Your task to perform on an android device: turn on improve location accuracy Image 0: 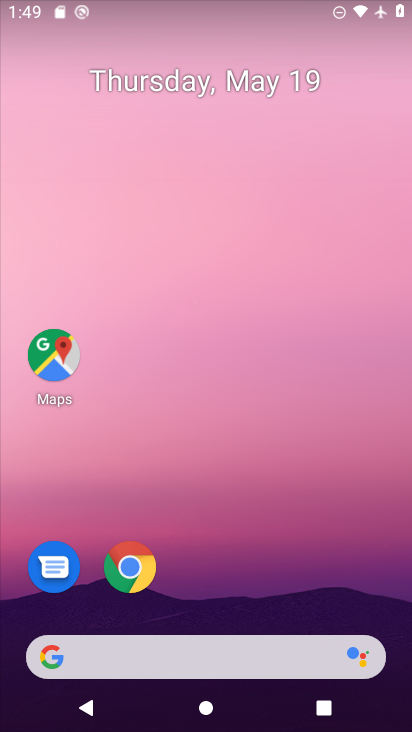
Step 0: drag from (273, 529) to (246, 38)
Your task to perform on an android device: turn on improve location accuracy Image 1: 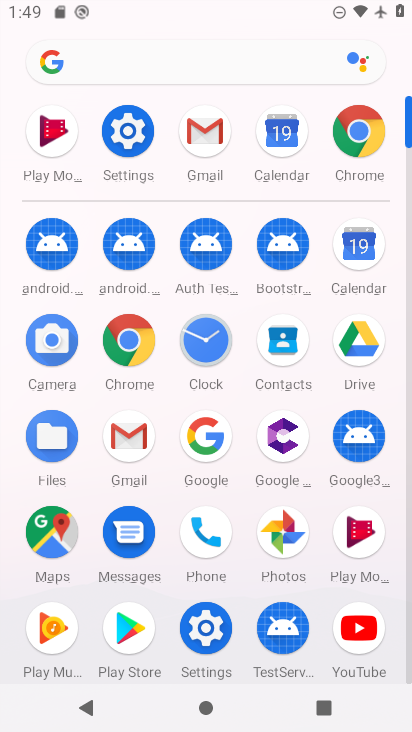
Step 1: click (140, 129)
Your task to perform on an android device: turn on improve location accuracy Image 2: 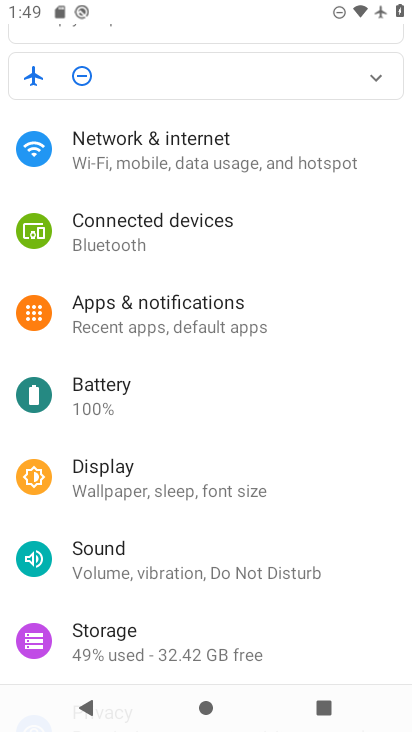
Step 2: drag from (240, 453) to (250, 117)
Your task to perform on an android device: turn on improve location accuracy Image 3: 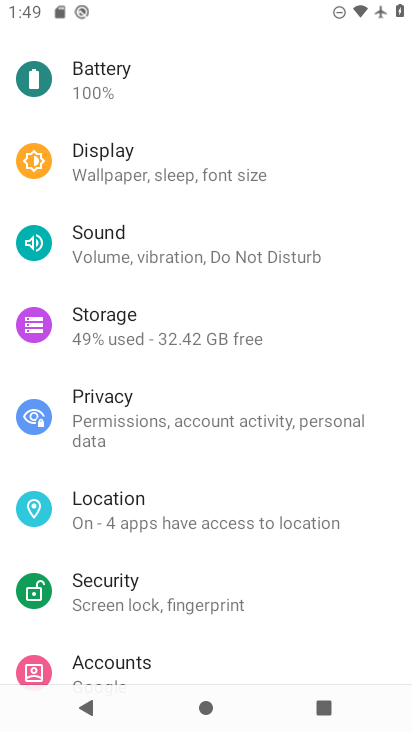
Step 3: click (200, 514)
Your task to perform on an android device: turn on improve location accuracy Image 4: 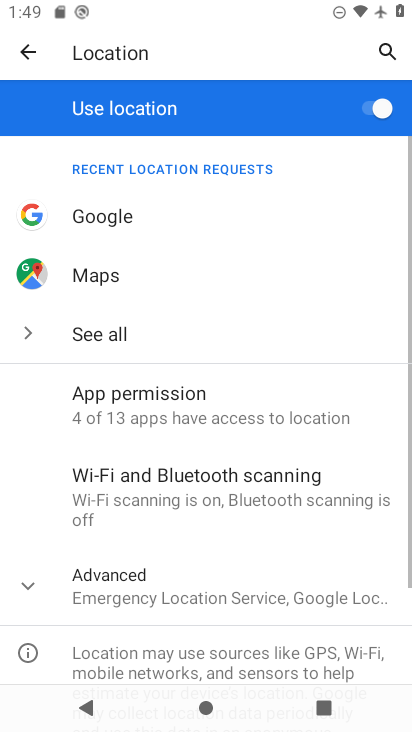
Step 4: click (34, 585)
Your task to perform on an android device: turn on improve location accuracy Image 5: 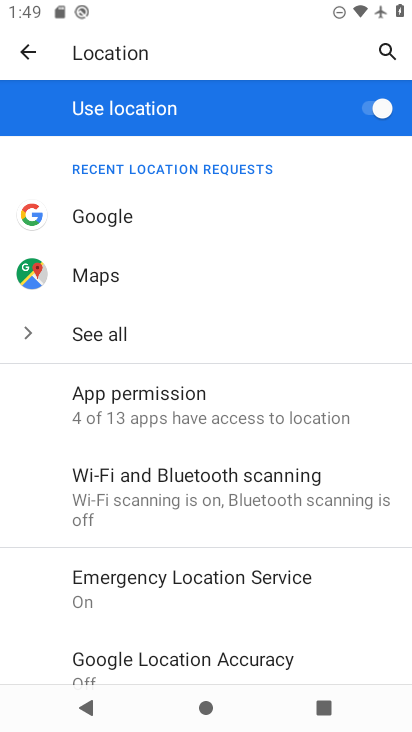
Step 5: click (259, 649)
Your task to perform on an android device: turn on improve location accuracy Image 6: 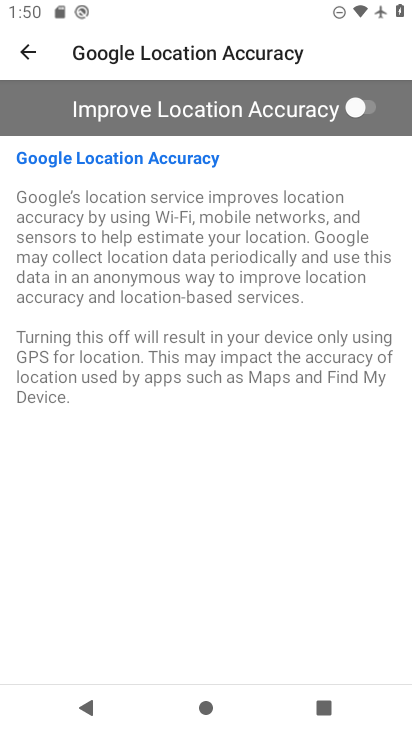
Step 6: click (359, 99)
Your task to perform on an android device: turn on improve location accuracy Image 7: 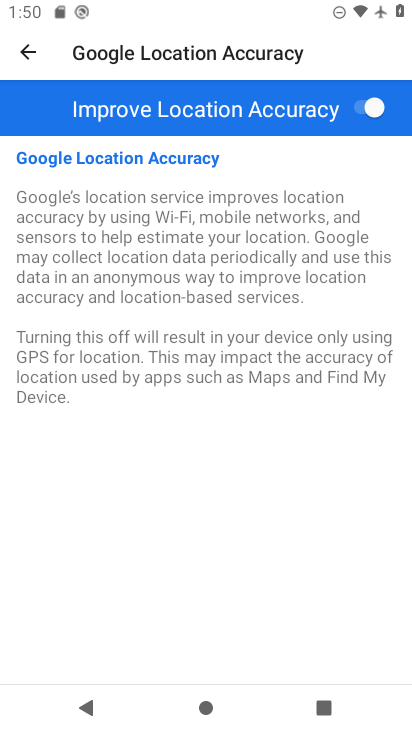
Step 7: task complete